Your task to perform on an android device: Open sound settings Image 0: 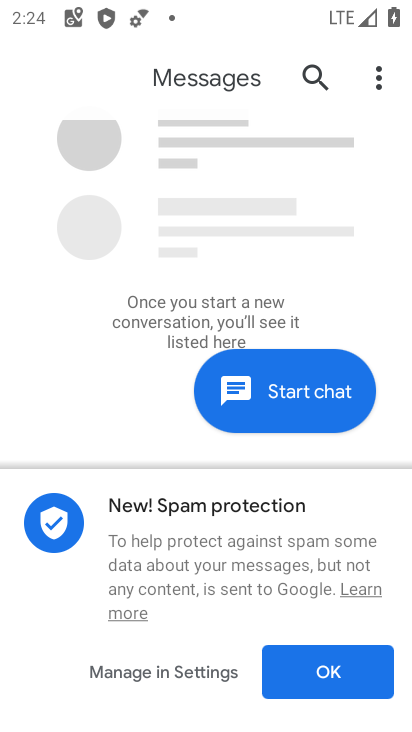
Step 0: drag from (180, 554) to (284, 130)
Your task to perform on an android device: Open sound settings Image 1: 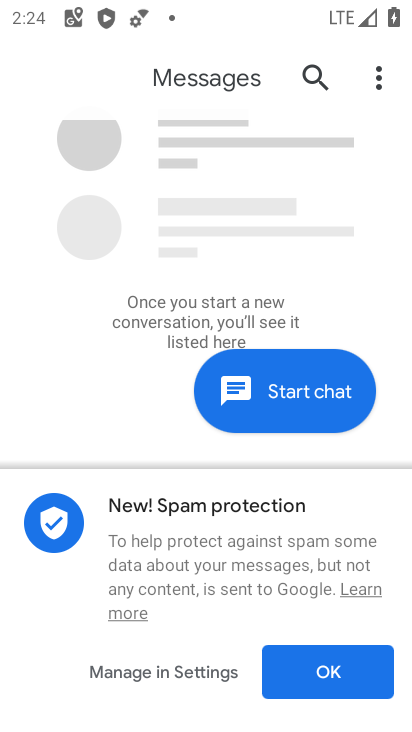
Step 1: press back button
Your task to perform on an android device: Open sound settings Image 2: 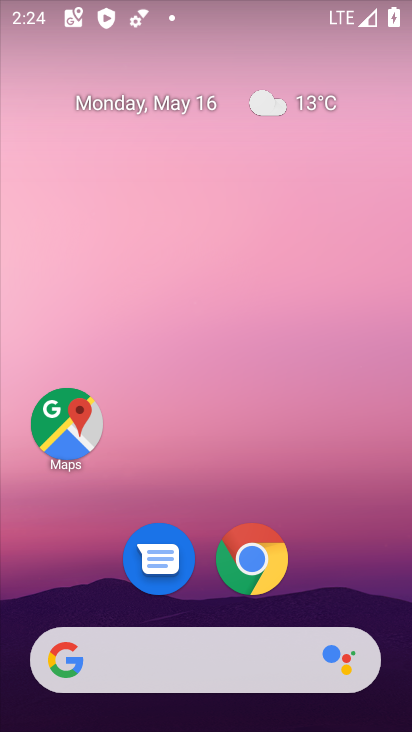
Step 2: drag from (175, 582) to (258, 22)
Your task to perform on an android device: Open sound settings Image 3: 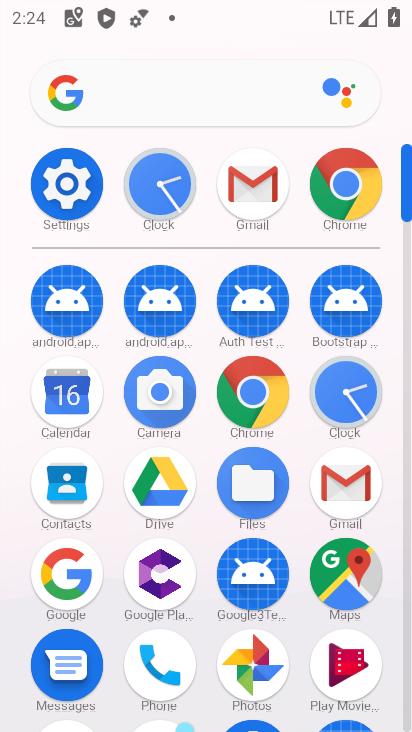
Step 3: click (75, 175)
Your task to perform on an android device: Open sound settings Image 4: 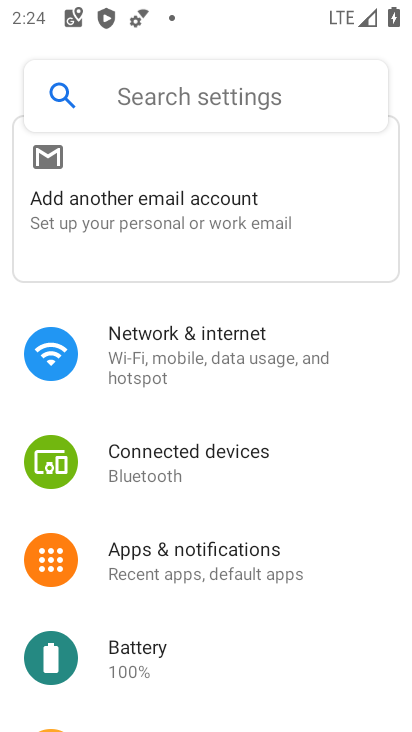
Step 4: drag from (171, 685) to (320, 120)
Your task to perform on an android device: Open sound settings Image 5: 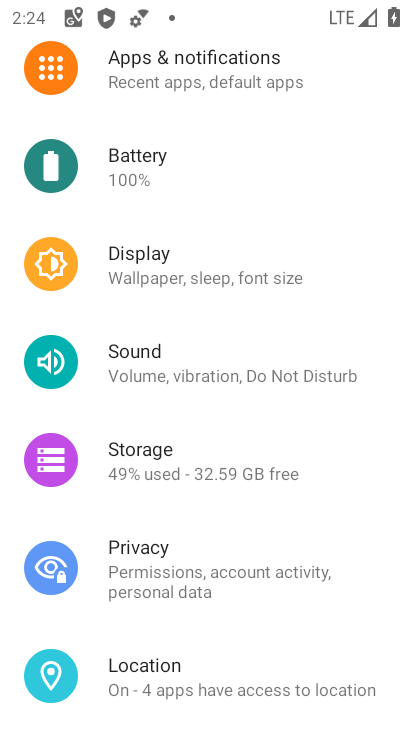
Step 5: click (170, 363)
Your task to perform on an android device: Open sound settings Image 6: 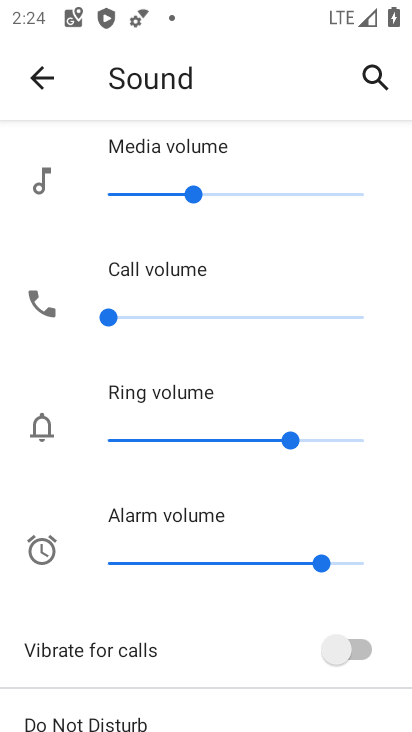
Step 6: task complete